Your task to perform on an android device: change the upload size in google photos Image 0: 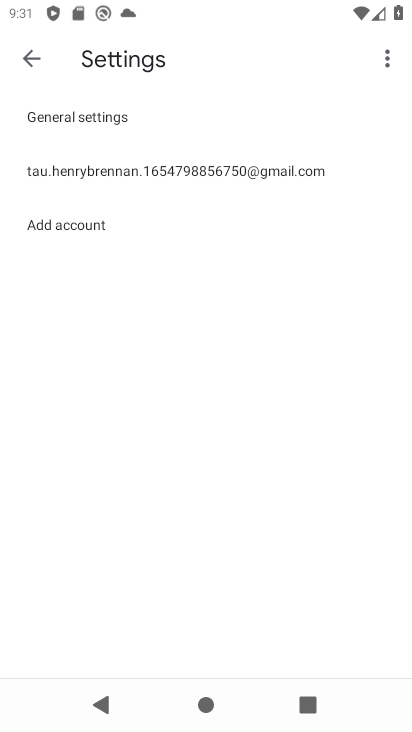
Step 0: press home button
Your task to perform on an android device: change the upload size in google photos Image 1: 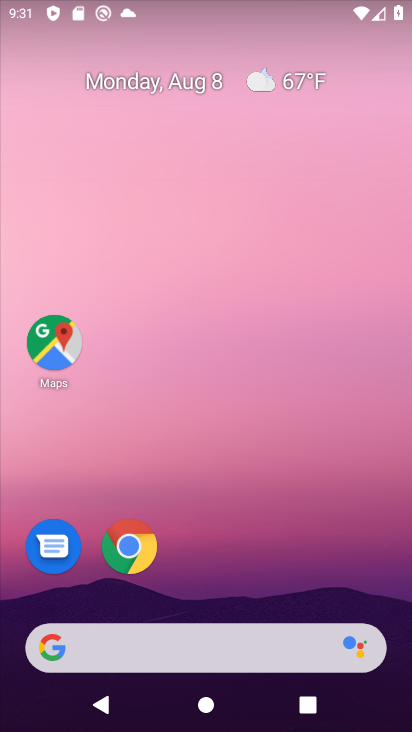
Step 1: drag from (275, 522) to (335, 264)
Your task to perform on an android device: change the upload size in google photos Image 2: 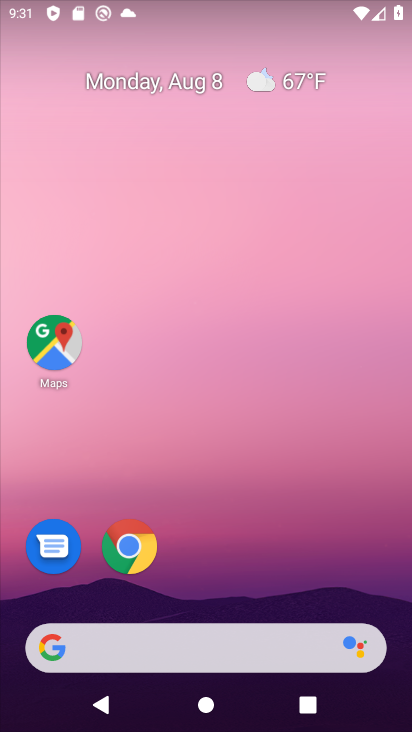
Step 2: drag from (247, 273) to (282, 95)
Your task to perform on an android device: change the upload size in google photos Image 3: 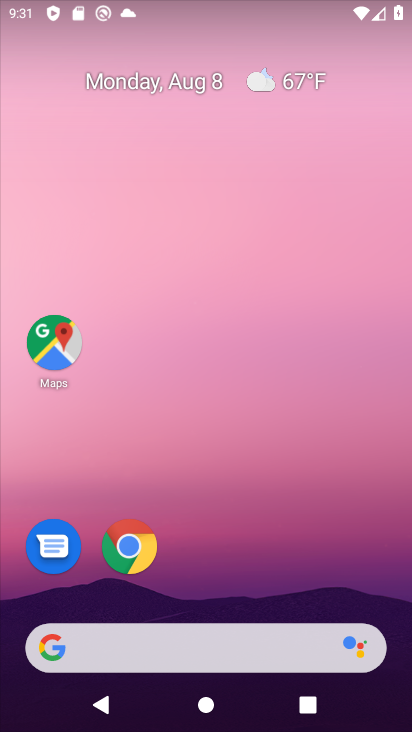
Step 3: drag from (263, 488) to (274, 87)
Your task to perform on an android device: change the upload size in google photos Image 4: 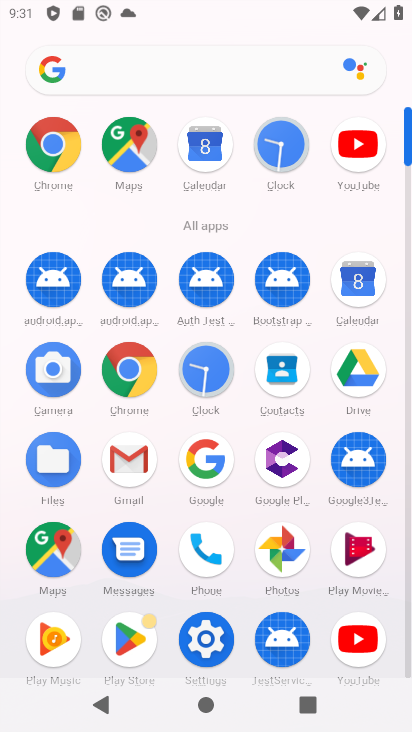
Step 4: click (278, 544)
Your task to perform on an android device: change the upload size in google photos Image 5: 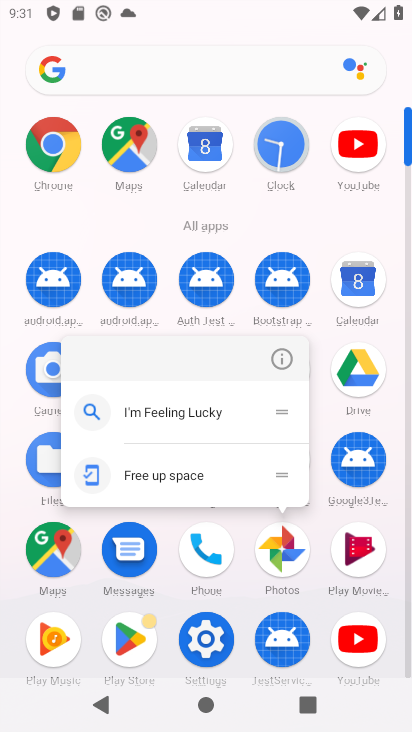
Step 5: click (290, 555)
Your task to perform on an android device: change the upload size in google photos Image 6: 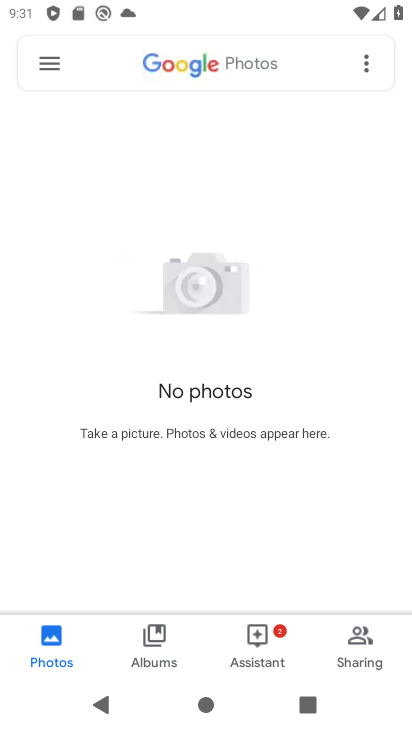
Step 6: task complete